Your task to perform on an android device: Show me popular videos on Youtube Image 0: 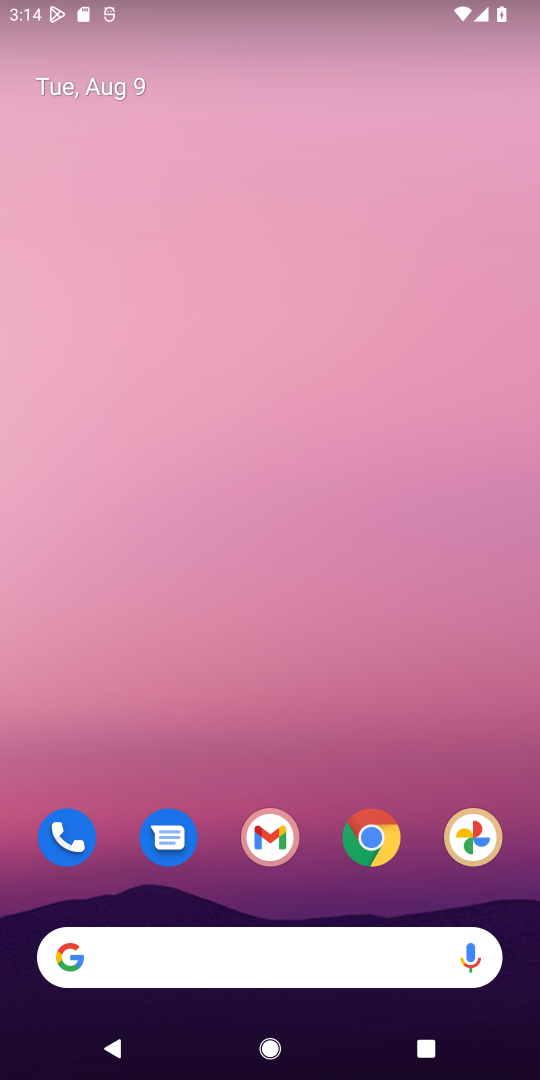
Step 0: drag from (316, 731) to (314, 193)
Your task to perform on an android device: Show me popular videos on Youtube Image 1: 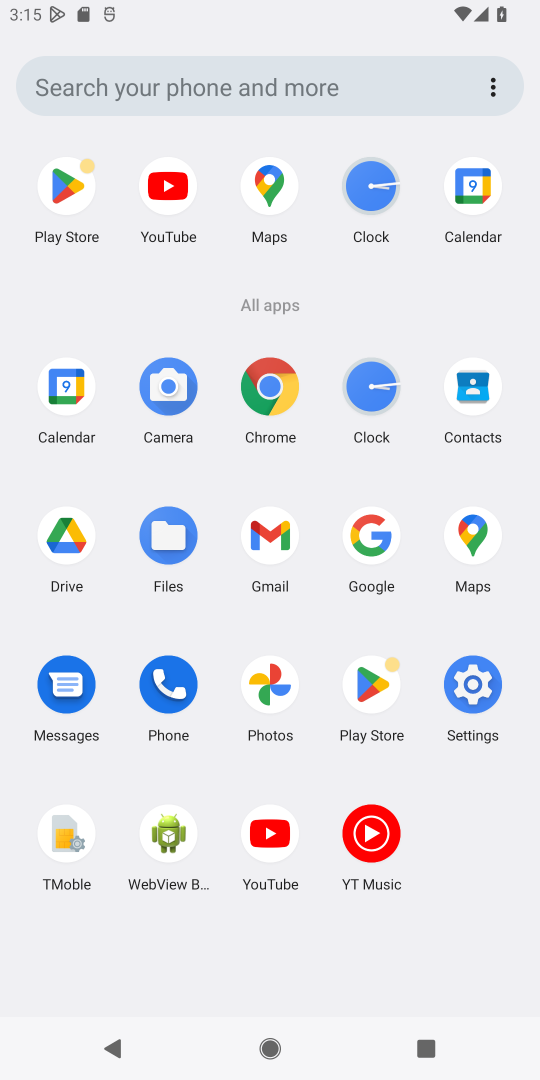
Step 1: click (287, 835)
Your task to perform on an android device: Show me popular videos on Youtube Image 2: 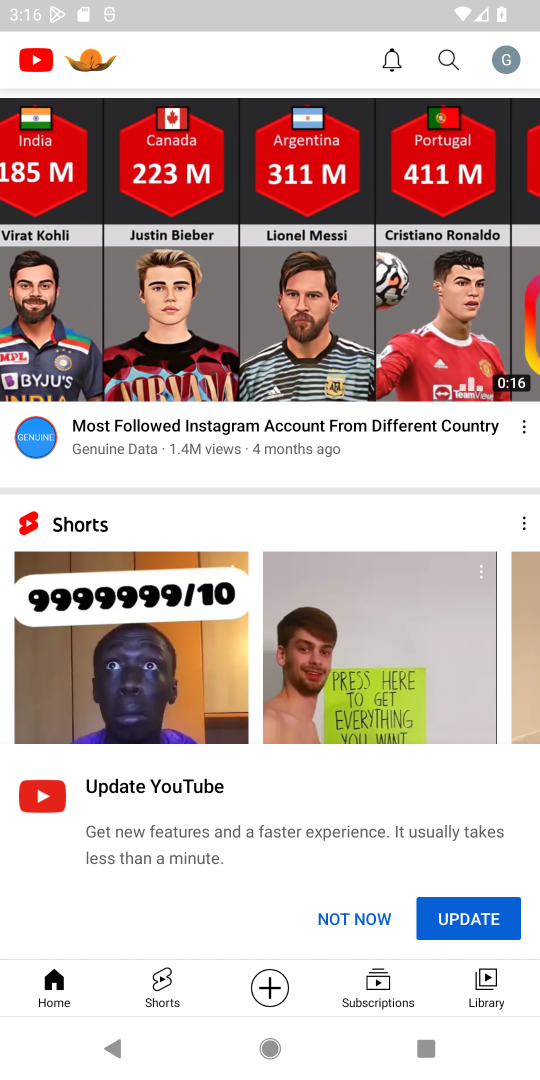
Step 2: click (444, 49)
Your task to perform on an android device: Show me popular videos on Youtube Image 3: 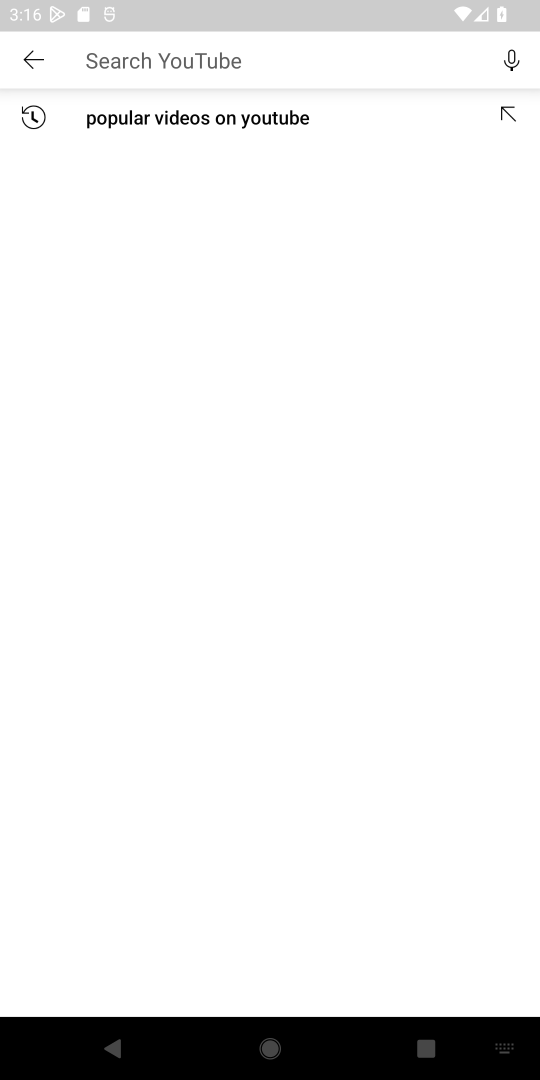
Step 3: click (305, 54)
Your task to perform on an android device: Show me popular videos on Youtube Image 4: 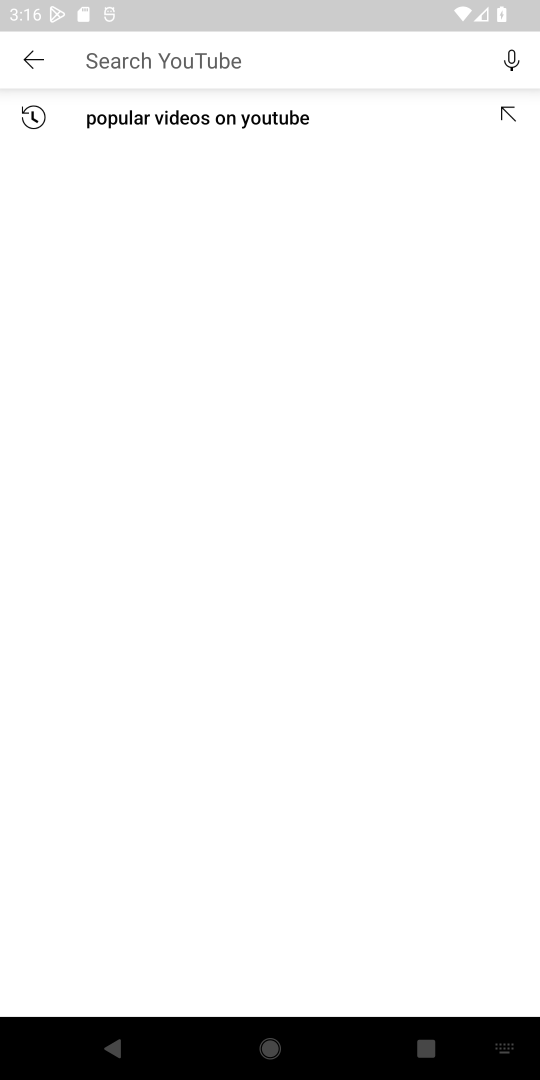
Step 4: type "delhi "
Your task to perform on an android device: Show me popular videos on Youtube Image 5: 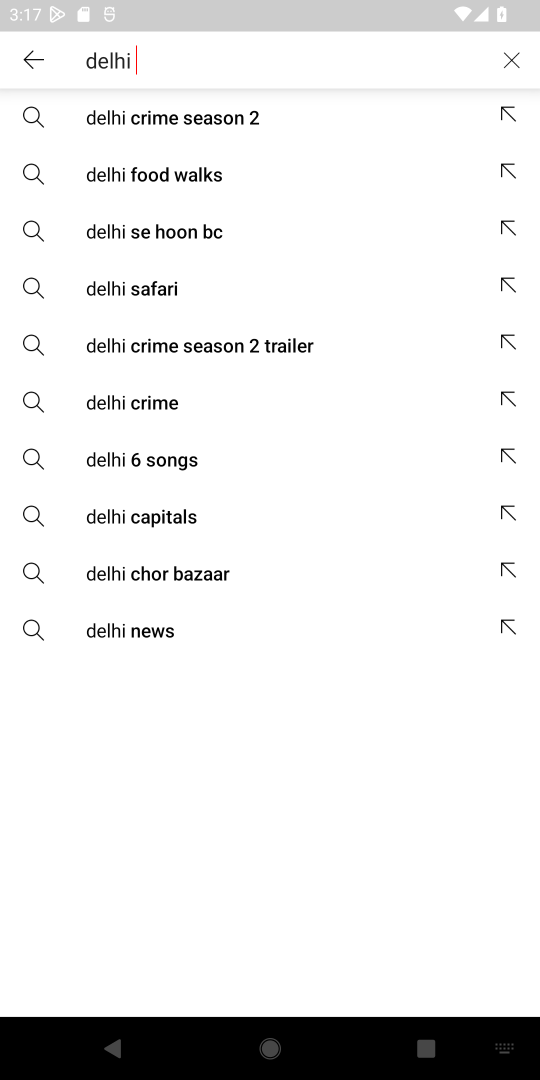
Step 5: click (102, 160)
Your task to perform on an android device: Show me popular videos on Youtube Image 6: 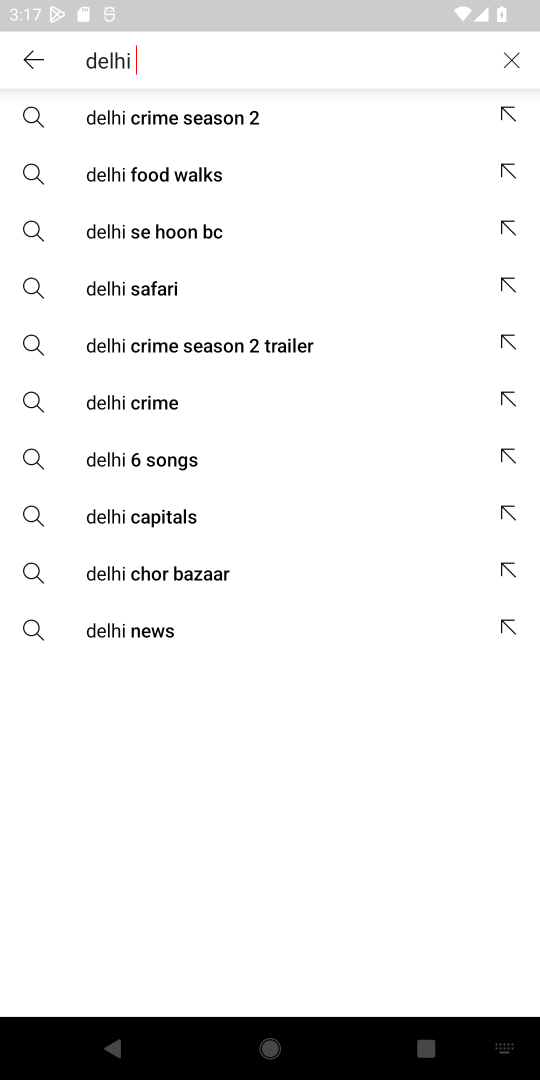
Step 6: type "1"
Your task to perform on an android device: Show me popular videos on Youtube Image 7: 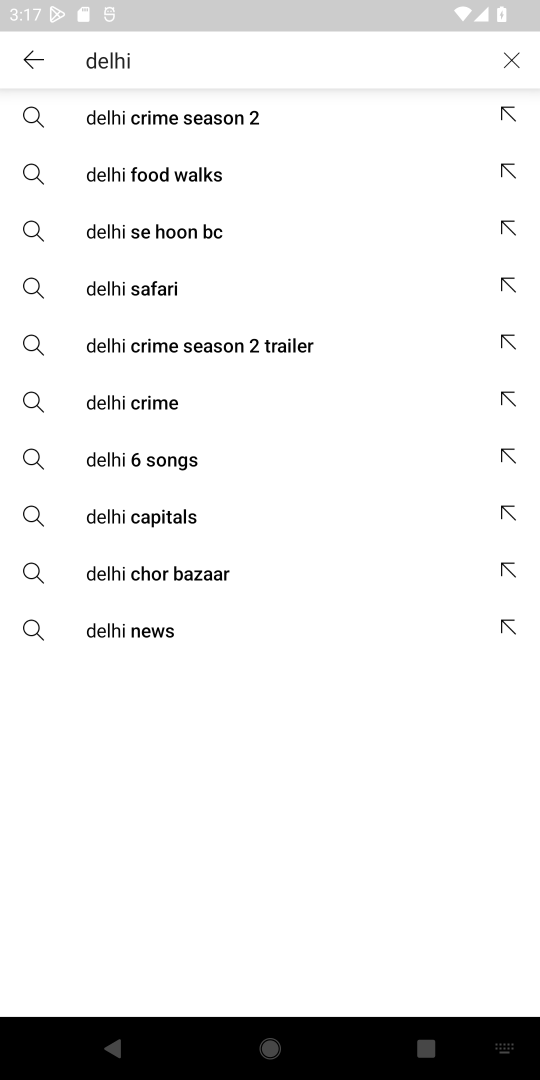
Step 7: click (102, 160)
Your task to perform on an android device: Show me popular videos on Youtube Image 8: 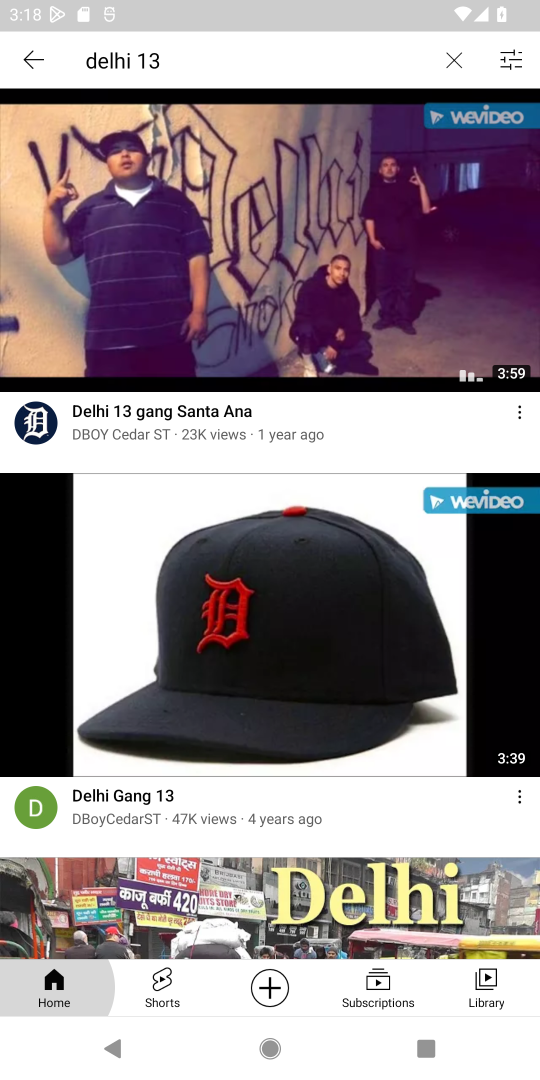
Step 8: task complete